Your task to perform on an android device: Add "razer blade" to the cart on bestbuy Image 0: 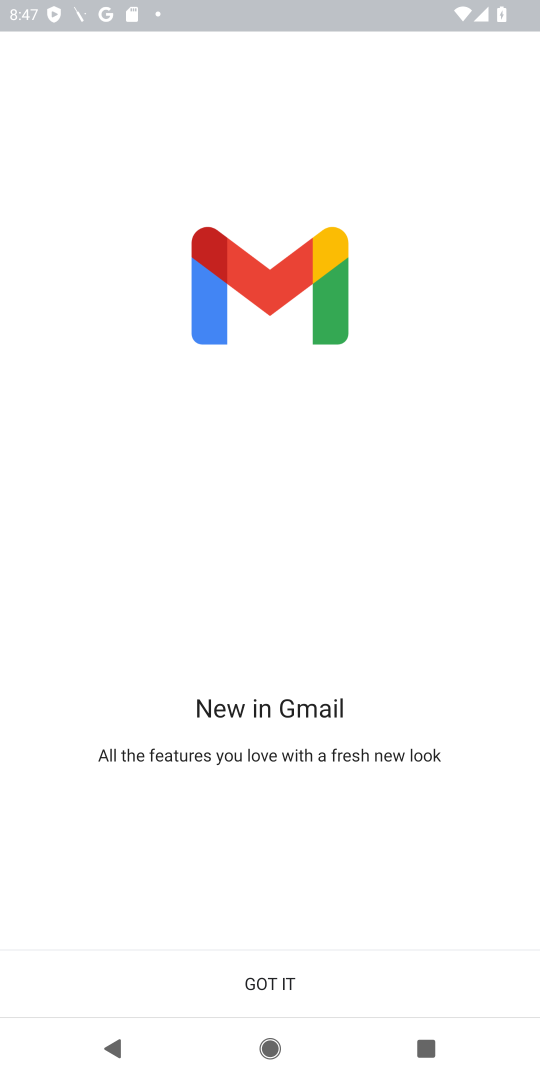
Step 0: press home button
Your task to perform on an android device: Add "razer blade" to the cart on bestbuy Image 1: 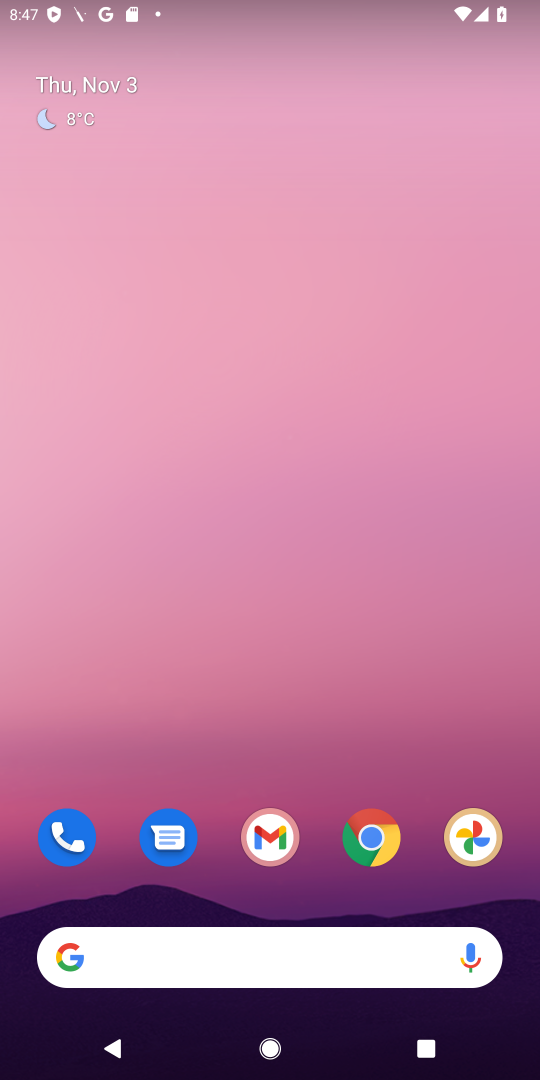
Step 1: click (376, 837)
Your task to perform on an android device: Add "razer blade" to the cart on bestbuy Image 2: 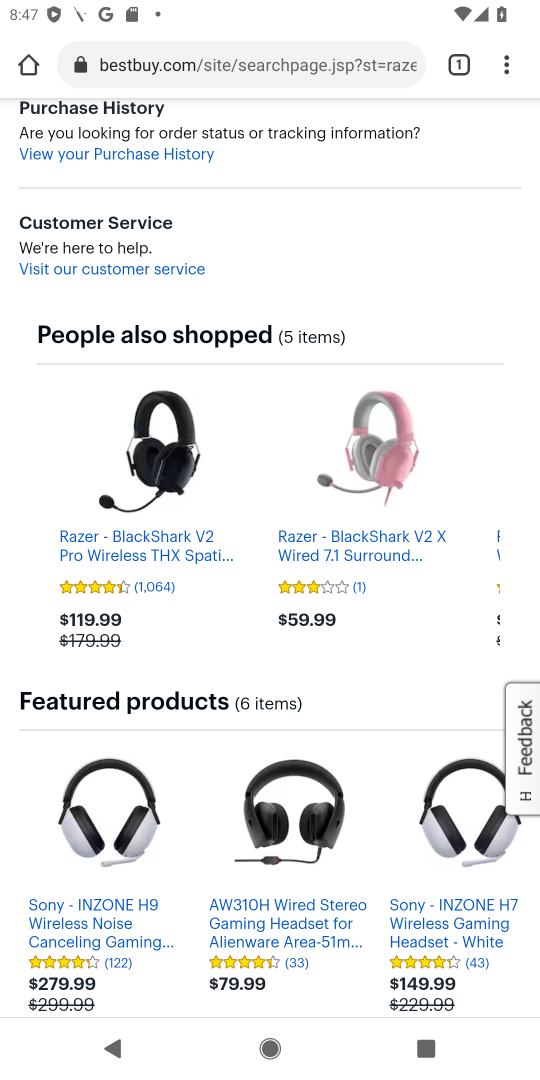
Step 2: drag from (286, 234) to (332, 896)
Your task to perform on an android device: Add "razer blade" to the cart on bestbuy Image 3: 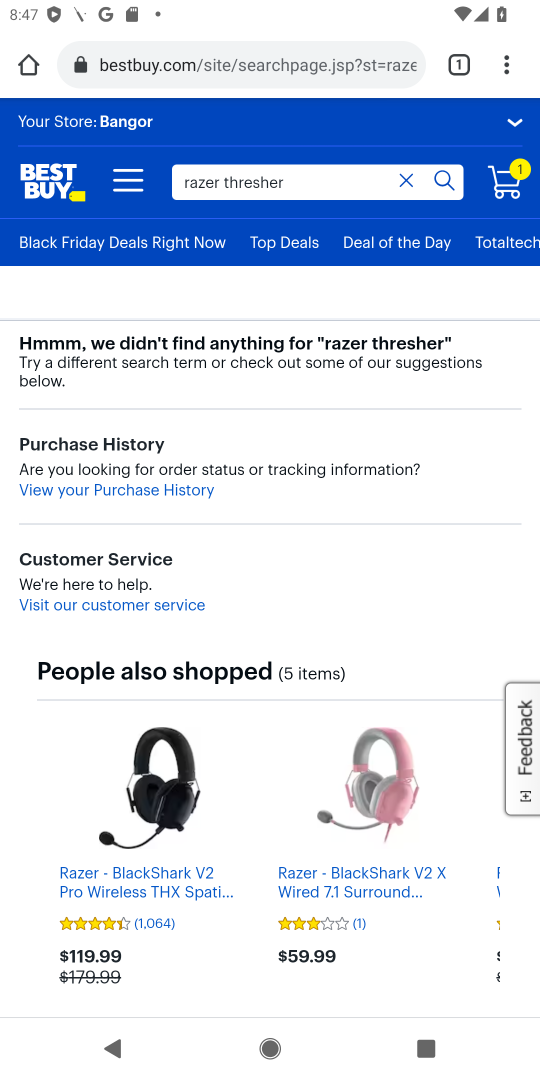
Step 3: click (407, 177)
Your task to perform on an android device: Add "razer blade" to the cart on bestbuy Image 4: 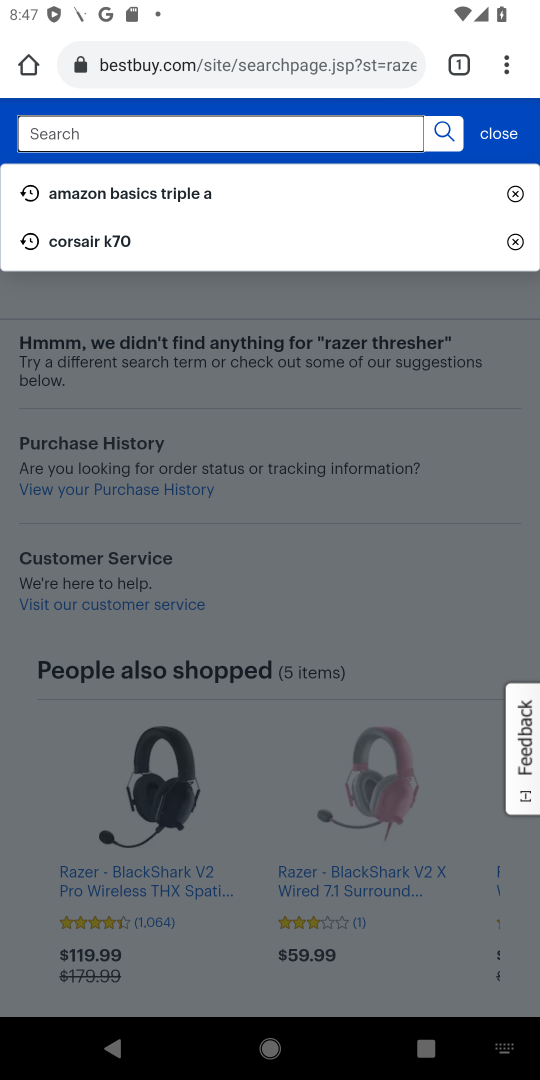
Step 4: click (204, 121)
Your task to perform on an android device: Add "razer blade" to the cart on bestbuy Image 5: 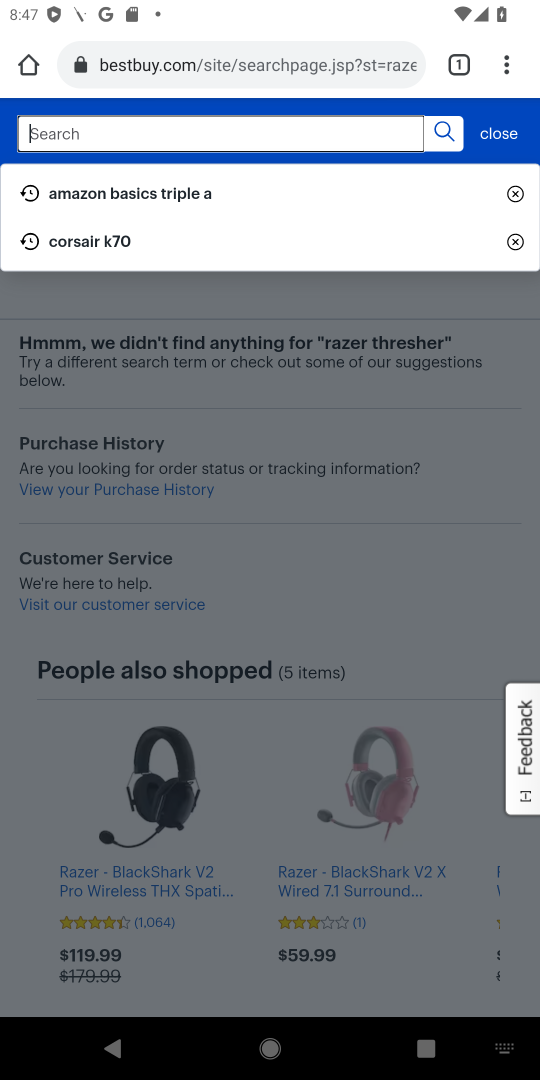
Step 5: press enter
Your task to perform on an android device: Add "razer blade" to the cart on bestbuy Image 6: 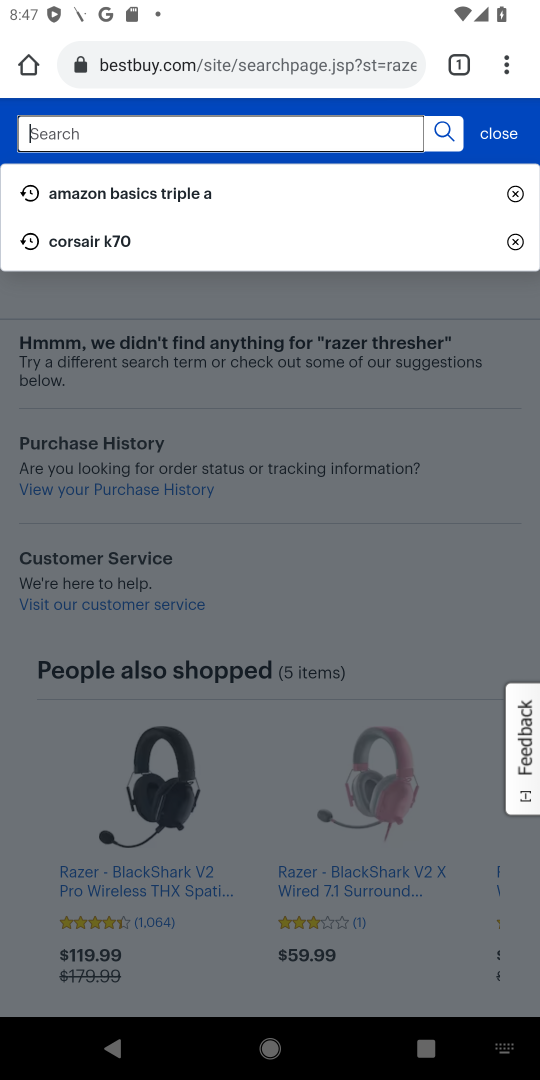
Step 6: type "razer blade"
Your task to perform on an android device: Add "razer blade" to the cart on bestbuy Image 7: 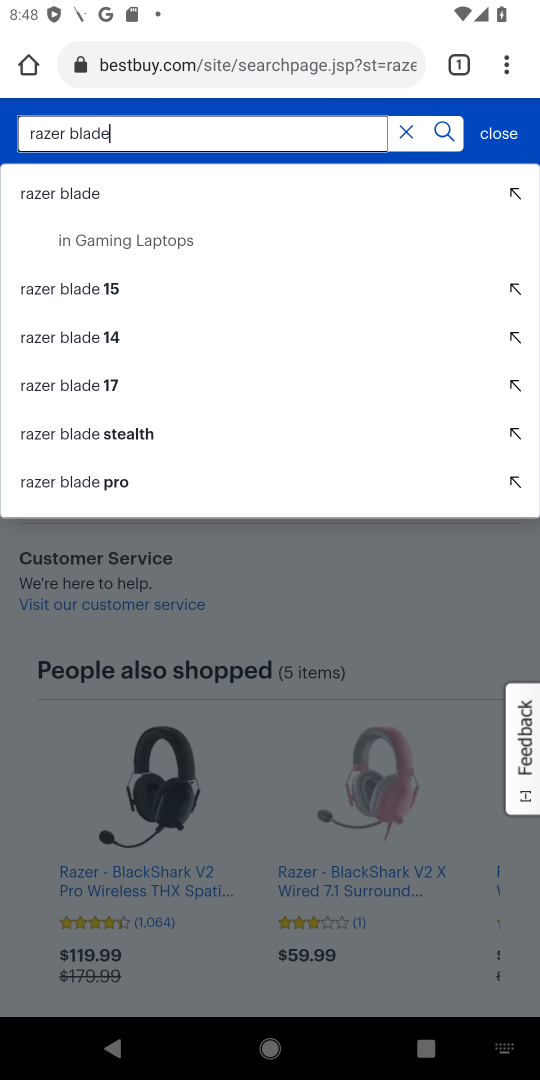
Step 7: click (440, 132)
Your task to perform on an android device: Add "razer blade" to the cart on bestbuy Image 8: 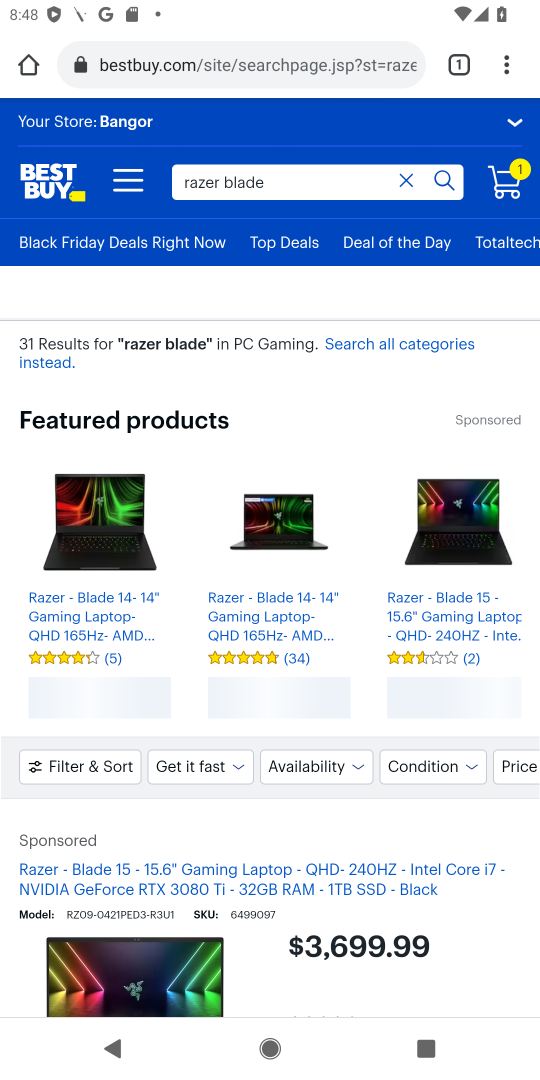
Step 8: drag from (288, 889) to (364, 625)
Your task to perform on an android device: Add "razer blade" to the cart on bestbuy Image 9: 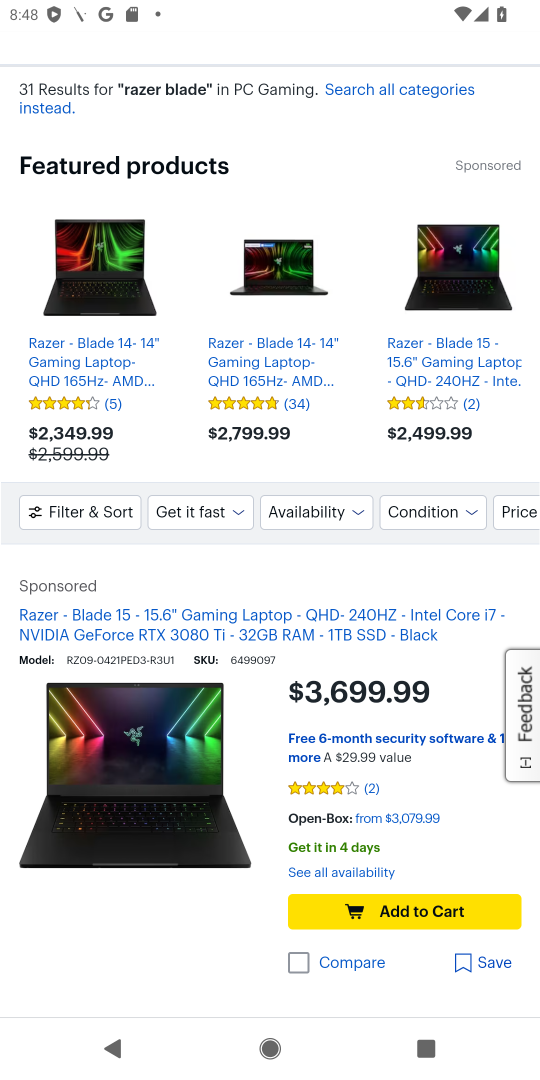
Step 9: click (401, 913)
Your task to perform on an android device: Add "razer blade" to the cart on bestbuy Image 10: 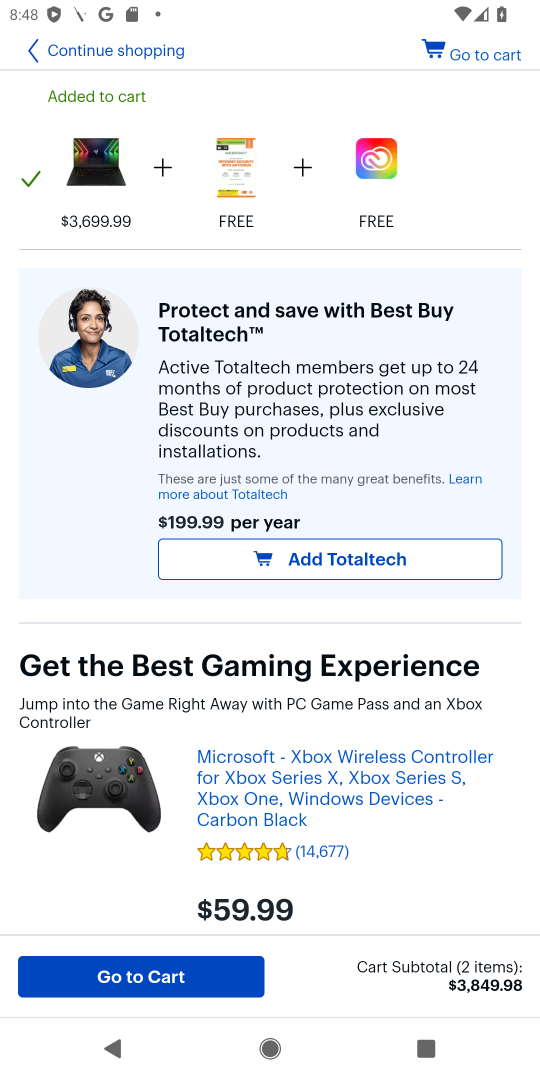
Step 10: drag from (356, 822) to (411, 96)
Your task to perform on an android device: Add "razer blade" to the cart on bestbuy Image 11: 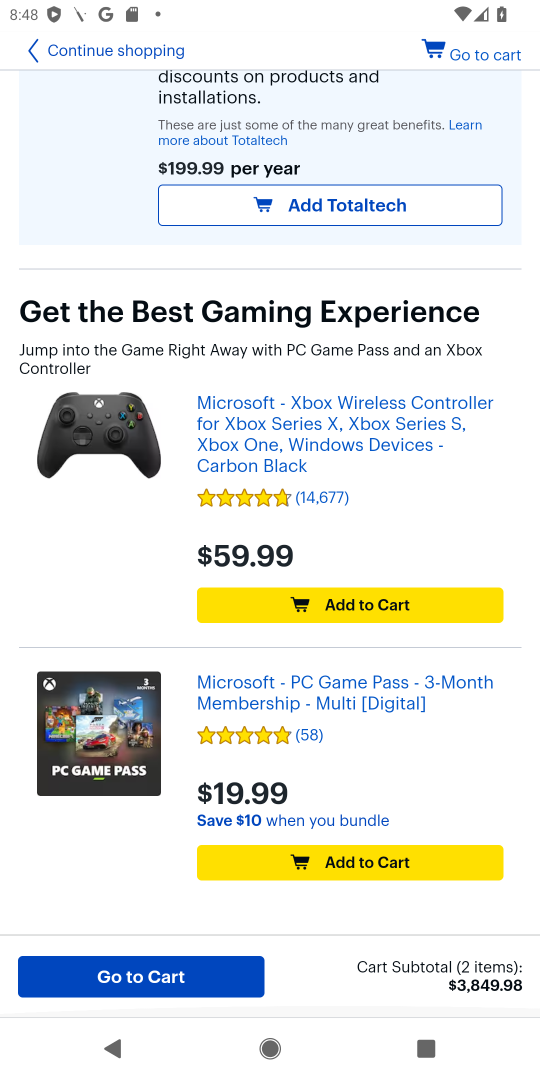
Step 11: drag from (257, 772) to (287, 1037)
Your task to perform on an android device: Add "razer blade" to the cart on bestbuy Image 12: 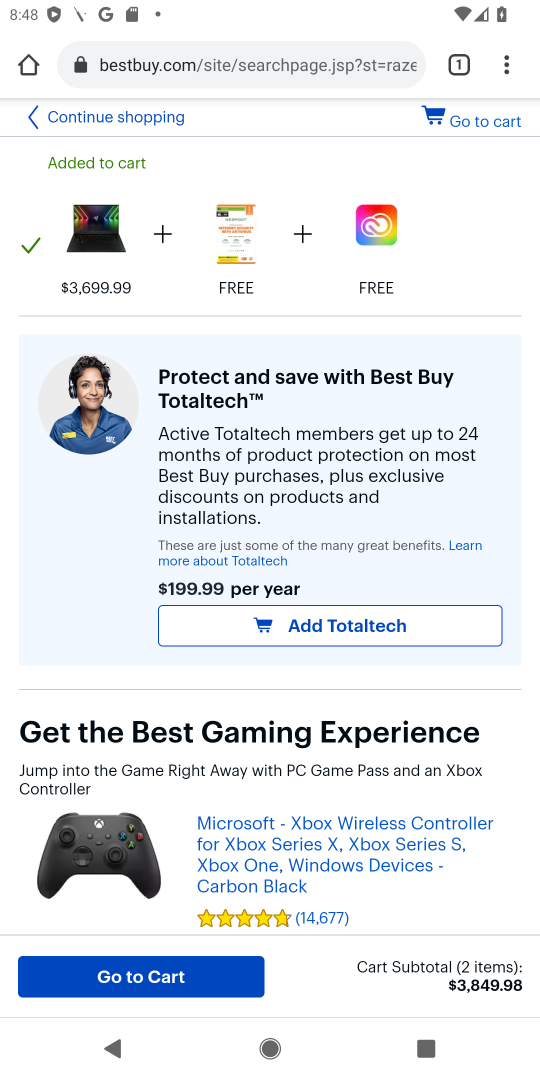
Step 12: click (493, 119)
Your task to perform on an android device: Add "razer blade" to the cart on bestbuy Image 13: 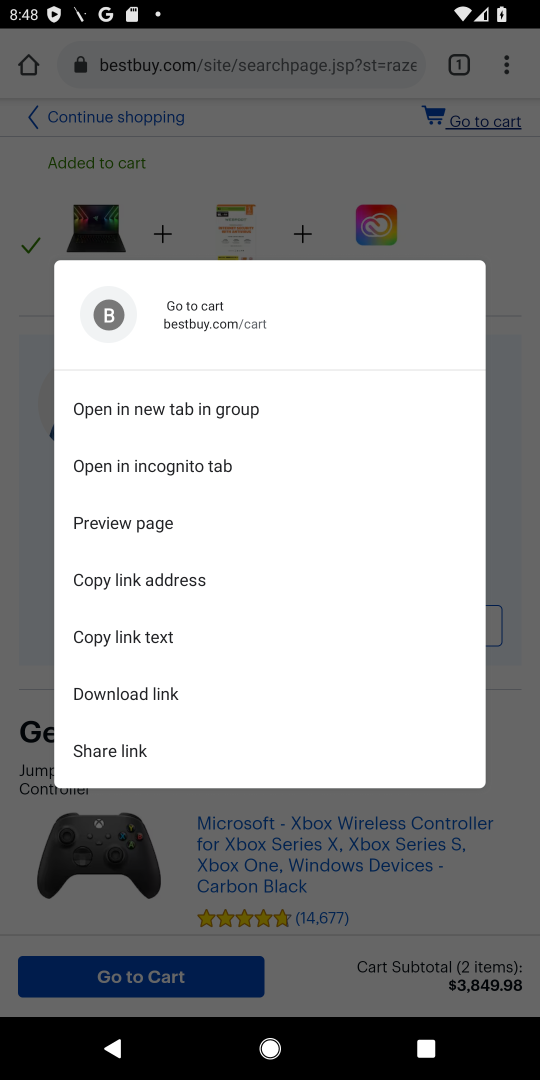
Step 13: click (470, 123)
Your task to perform on an android device: Add "razer blade" to the cart on bestbuy Image 14: 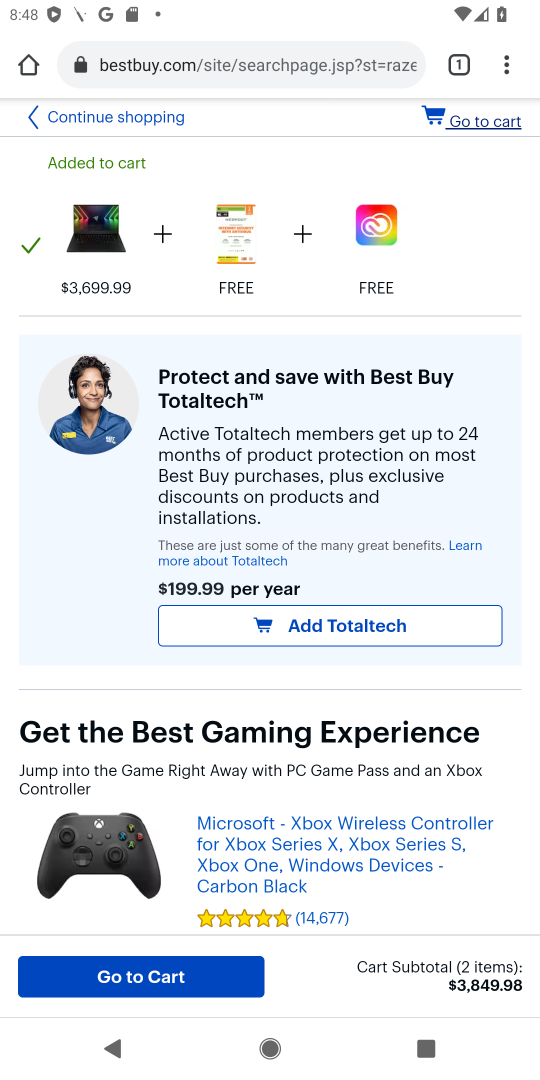
Step 14: click (480, 117)
Your task to perform on an android device: Add "razer blade" to the cart on bestbuy Image 15: 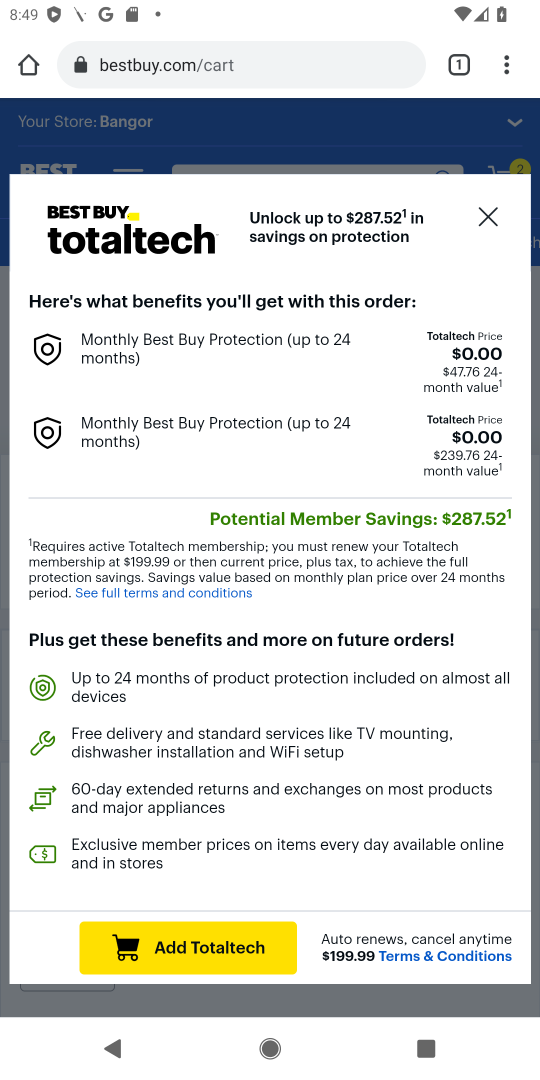
Step 15: click (486, 206)
Your task to perform on an android device: Add "razer blade" to the cart on bestbuy Image 16: 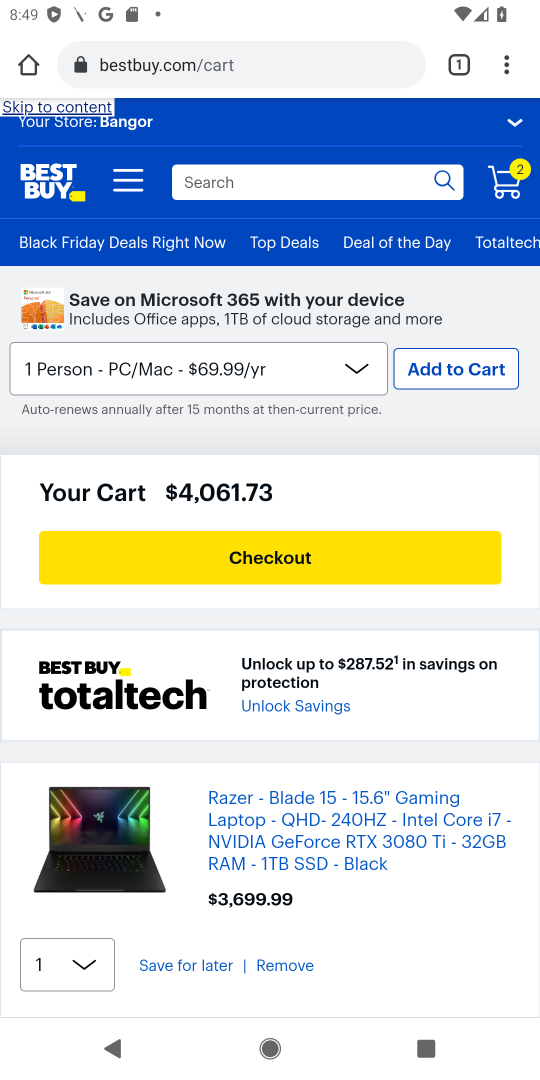
Step 16: drag from (251, 818) to (362, 192)
Your task to perform on an android device: Add "razer blade" to the cart on bestbuy Image 17: 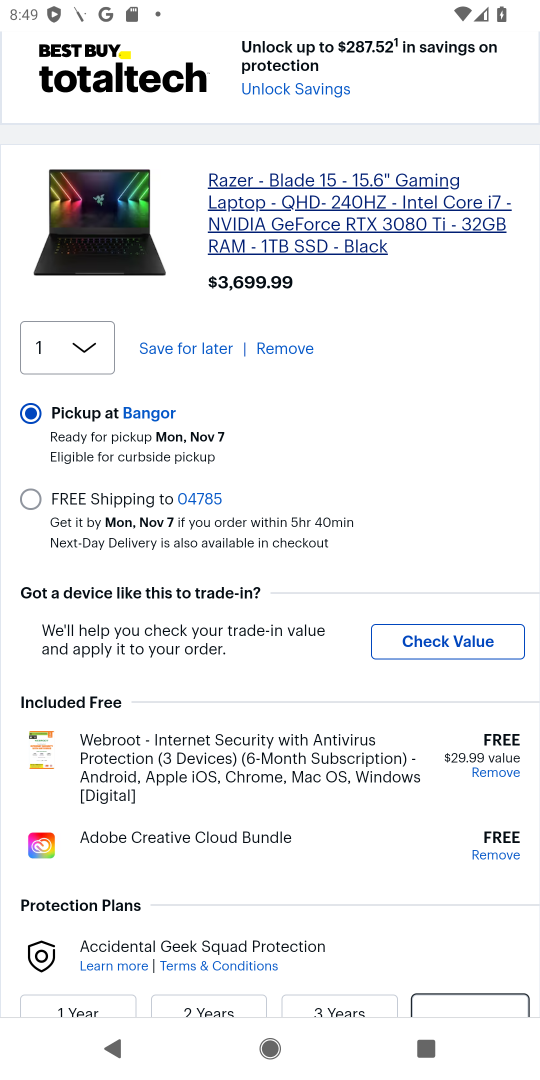
Step 17: drag from (219, 768) to (274, 129)
Your task to perform on an android device: Add "razer blade" to the cart on bestbuy Image 18: 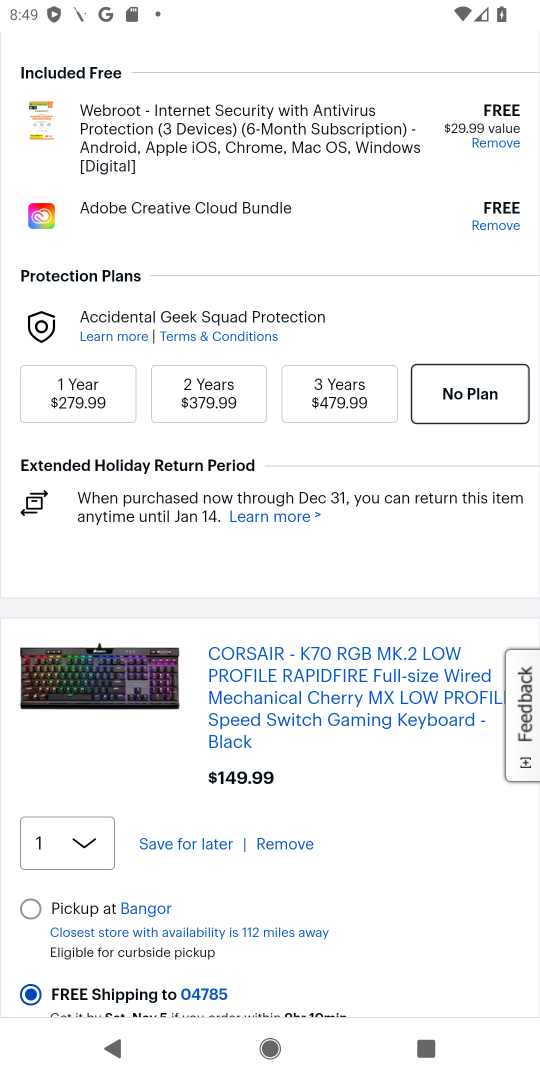
Step 18: click (286, 836)
Your task to perform on an android device: Add "razer blade" to the cart on bestbuy Image 19: 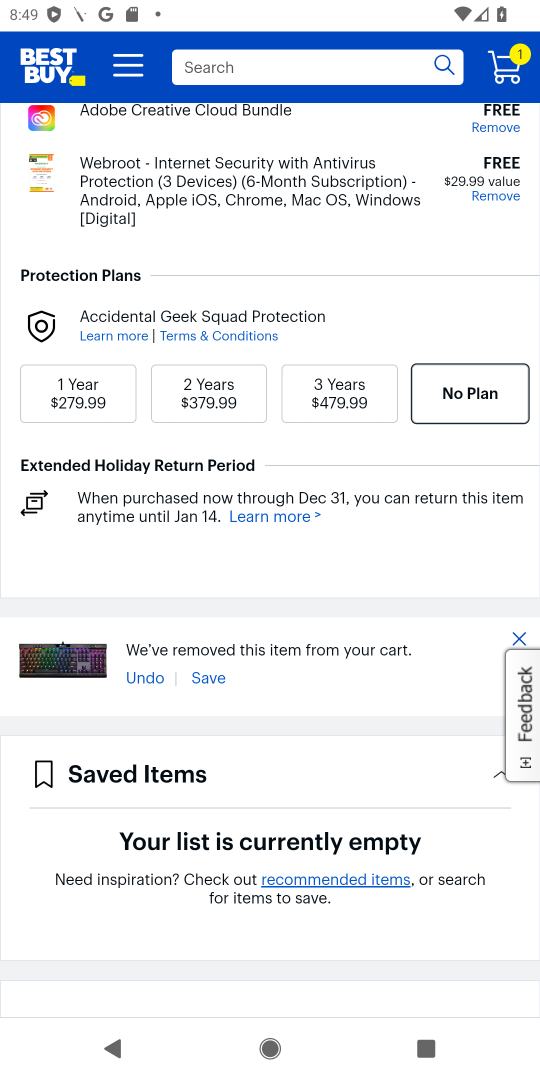
Step 19: task complete